Your task to perform on an android device: change notifications settings Image 0: 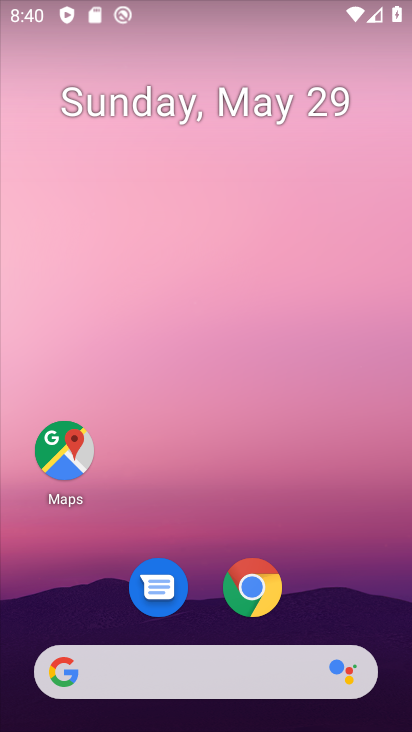
Step 0: drag from (210, 629) to (329, 45)
Your task to perform on an android device: change notifications settings Image 1: 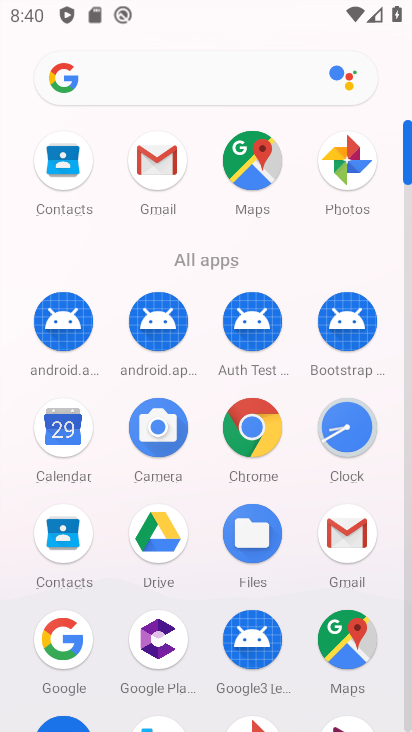
Step 1: drag from (198, 600) to (306, 104)
Your task to perform on an android device: change notifications settings Image 2: 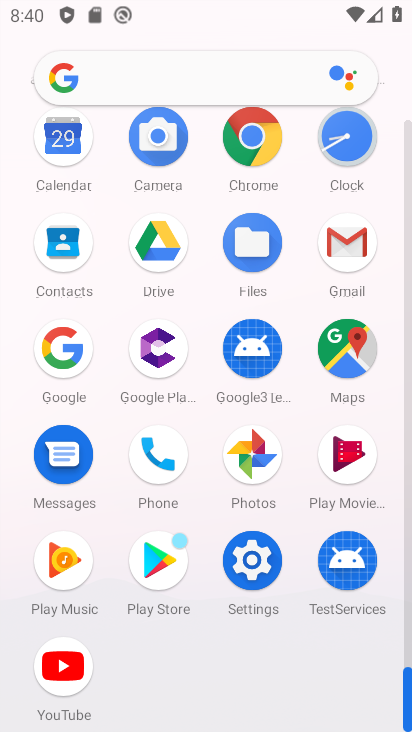
Step 2: click (257, 554)
Your task to perform on an android device: change notifications settings Image 3: 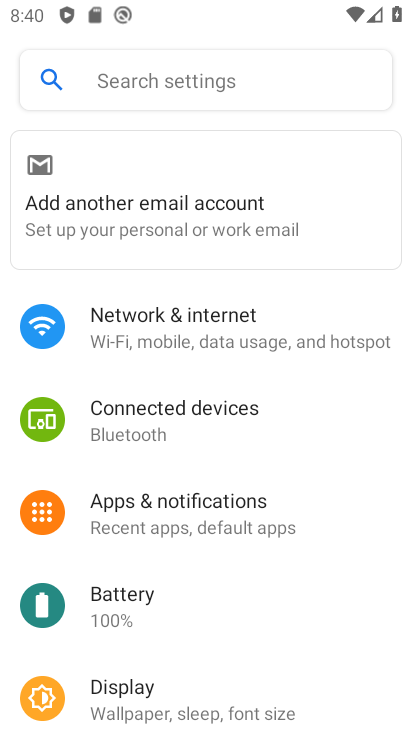
Step 3: click (172, 516)
Your task to perform on an android device: change notifications settings Image 4: 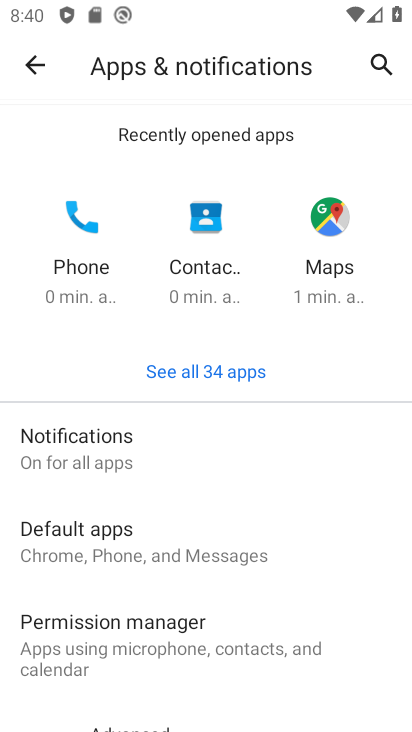
Step 4: click (176, 449)
Your task to perform on an android device: change notifications settings Image 5: 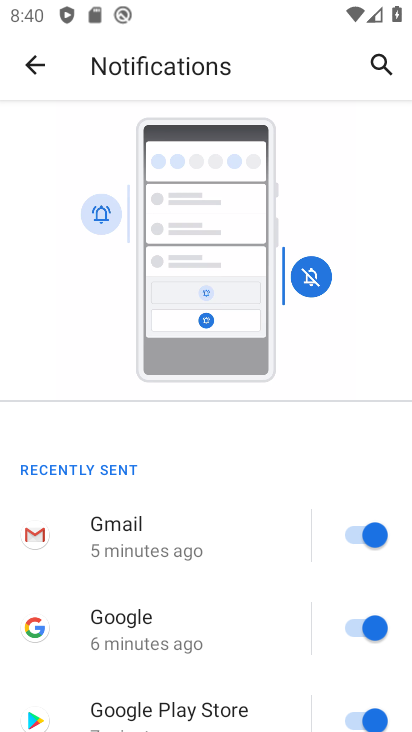
Step 5: drag from (162, 663) to (279, 117)
Your task to perform on an android device: change notifications settings Image 6: 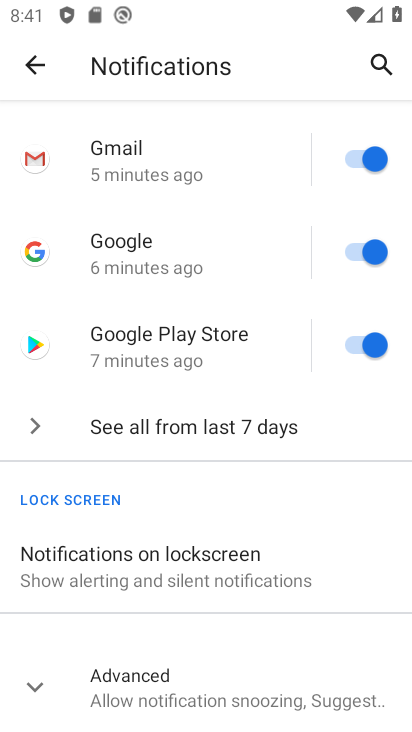
Step 6: click (161, 704)
Your task to perform on an android device: change notifications settings Image 7: 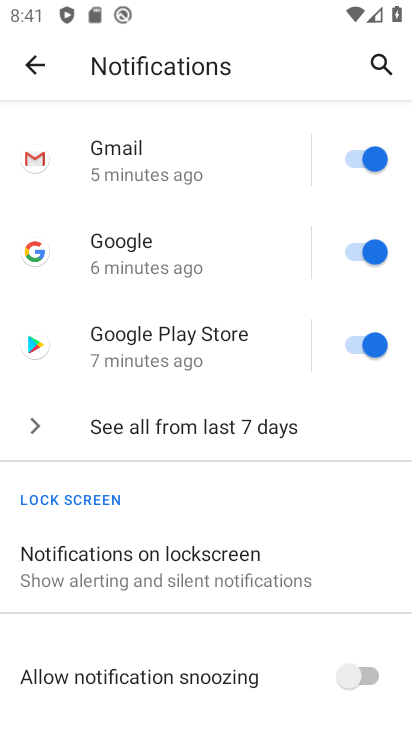
Step 7: click (361, 676)
Your task to perform on an android device: change notifications settings Image 8: 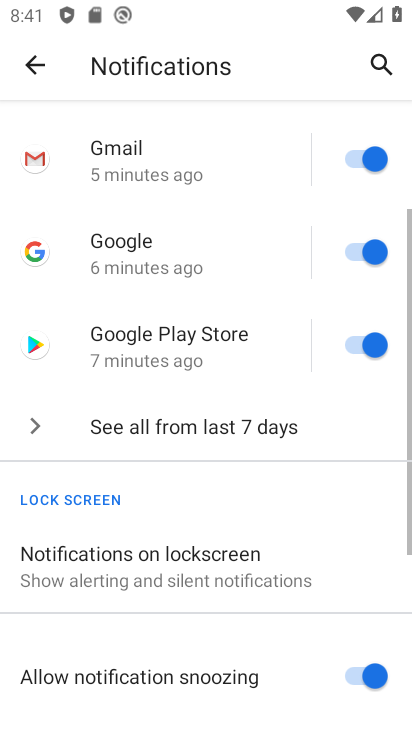
Step 8: task complete